Your task to perform on an android device: Open internet settings Image 0: 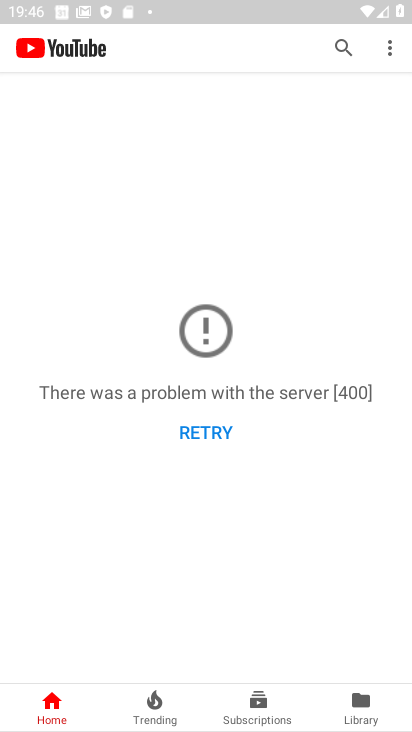
Step 0: press home button
Your task to perform on an android device: Open internet settings Image 1: 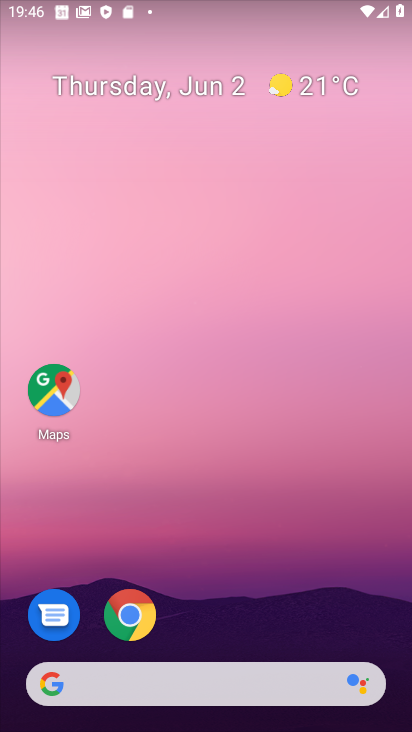
Step 1: drag from (209, 603) to (141, 139)
Your task to perform on an android device: Open internet settings Image 2: 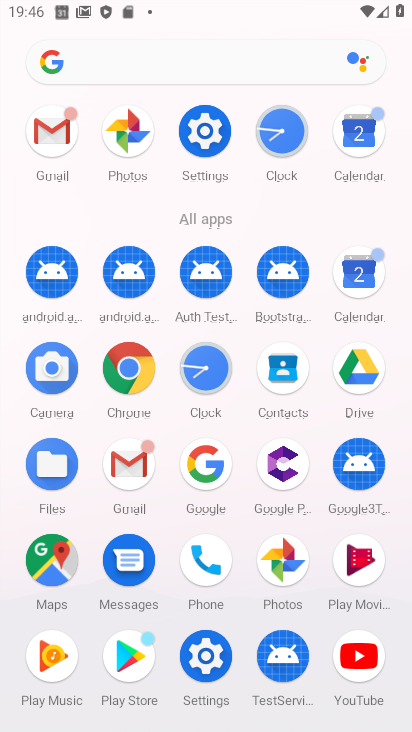
Step 2: click (219, 156)
Your task to perform on an android device: Open internet settings Image 3: 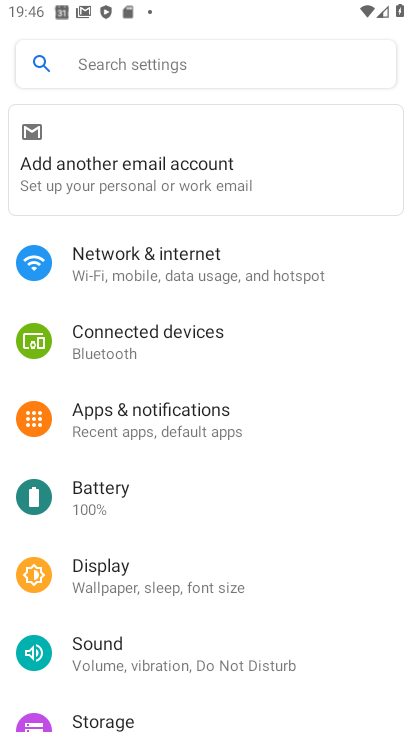
Step 3: click (204, 186)
Your task to perform on an android device: Open internet settings Image 4: 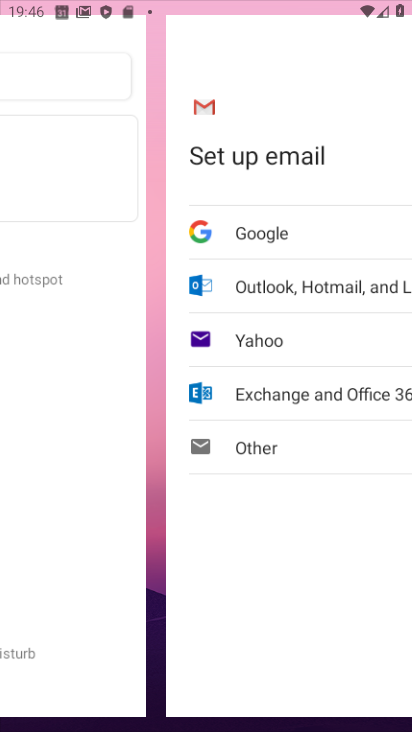
Step 4: click (243, 252)
Your task to perform on an android device: Open internet settings Image 5: 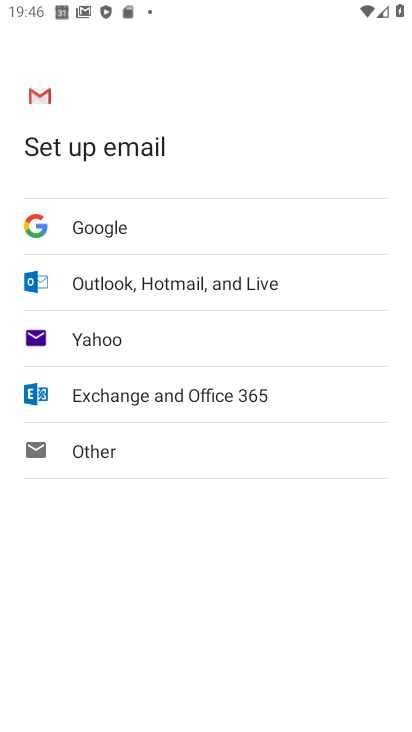
Step 5: task complete